Your task to perform on an android device: turn off data saver in the chrome app Image 0: 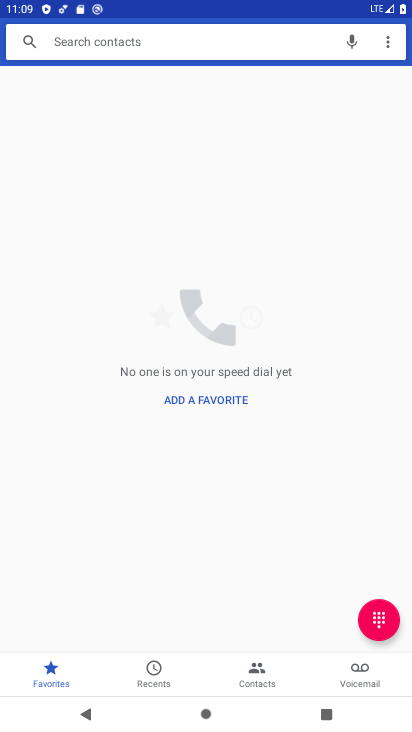
Step 0: press home button
Your task to perform on an android device: turn off data saver in the chrome app Image 1: 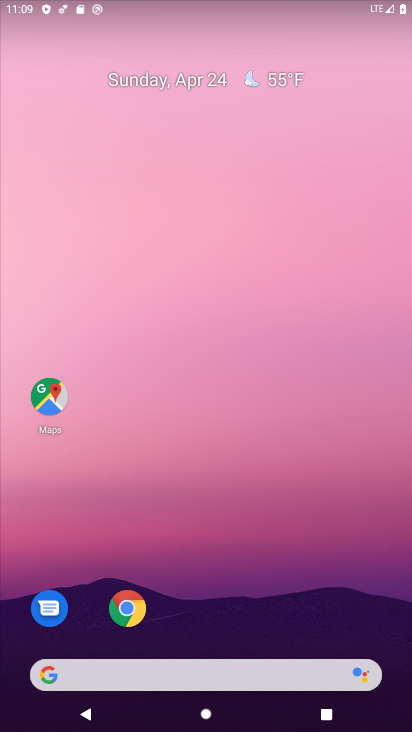
Step 1: drag from (177, 593) to (273, 61)
Your task to perform on an android device: turn off data saver in the chrome app Image 2: 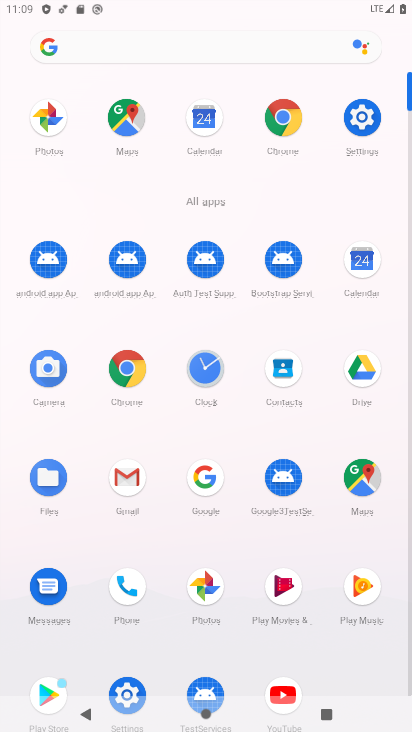
Step 2: click (286, 131)
Your task to perform on an android device: turn off data saver in the chrome app Image 3: 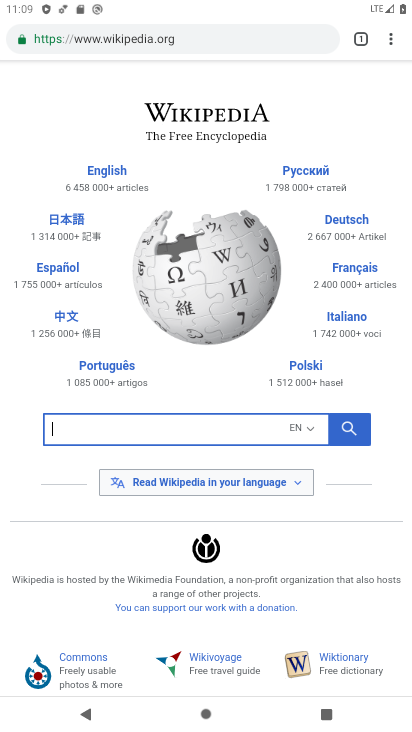
Step 3: click (386, 40)
Your task to perform on an android device: turn off data saver in the chrome app Image 4: 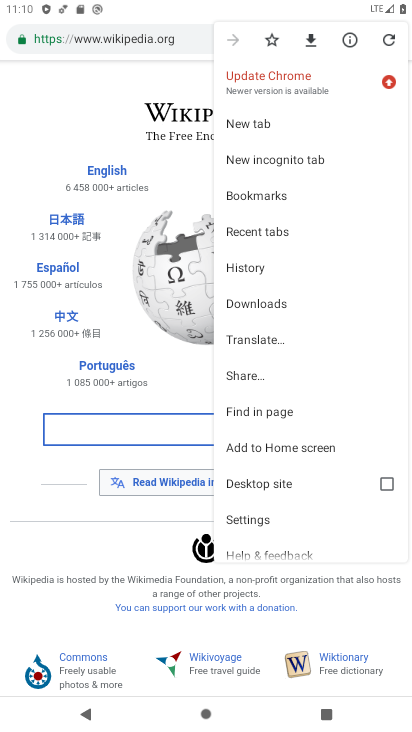
Step 4: click (254, 521)
Your task to perform on an android device: turn off data saver in the chrome app Image 5: 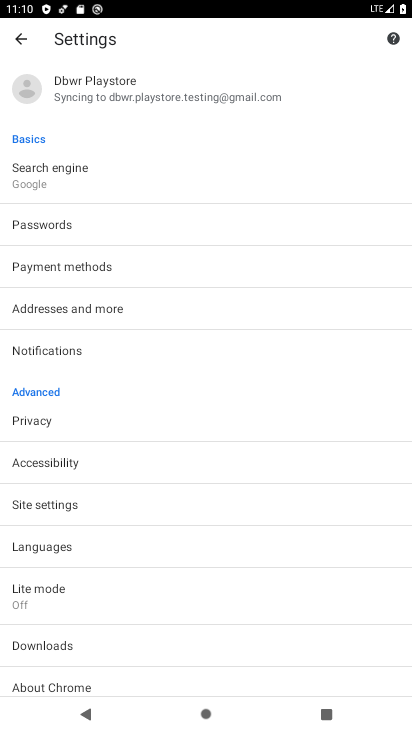
Step 5: click (70, 600)
Your task to perform on an android device: turn off data saver in the chrome app Image 6: 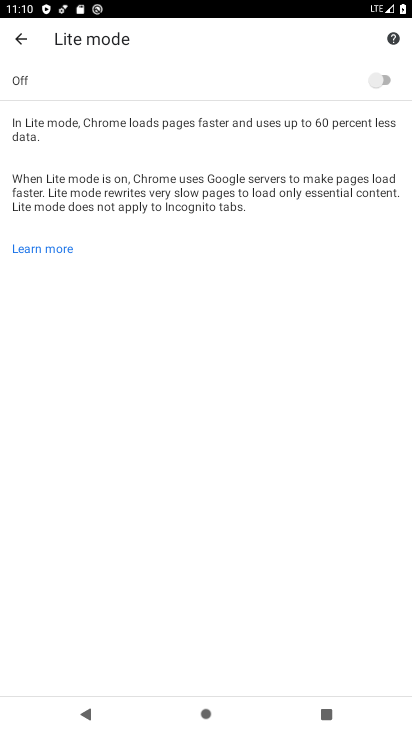
Step 6: task complete